Your task to perform on an android device: What's on my calendar tomorrow? Image 0: 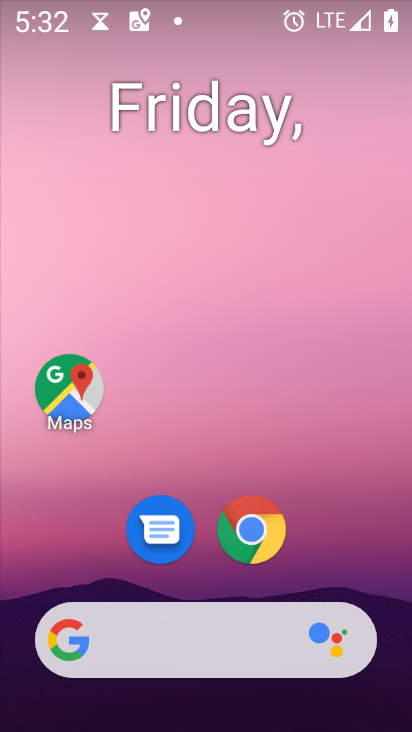
Step 0: drag from (334, 534) to (261, 58)
Your task to perform on an android device: What's on my calendar tomorrow? Image 1: 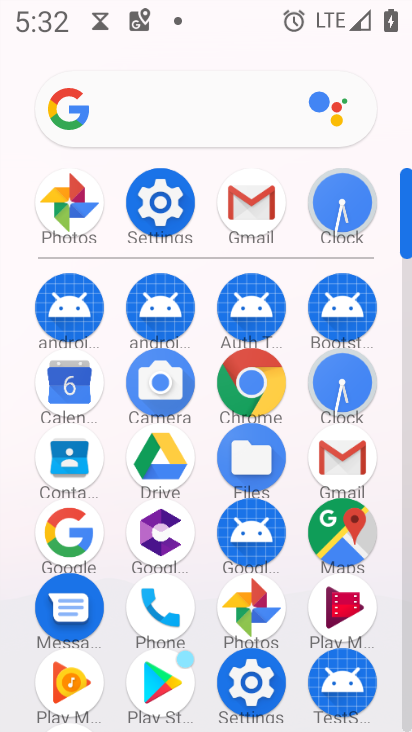
Step 1: click (68, 397)
Your task to perform on an android device: What's on my calendar tomorrow? Image 2: 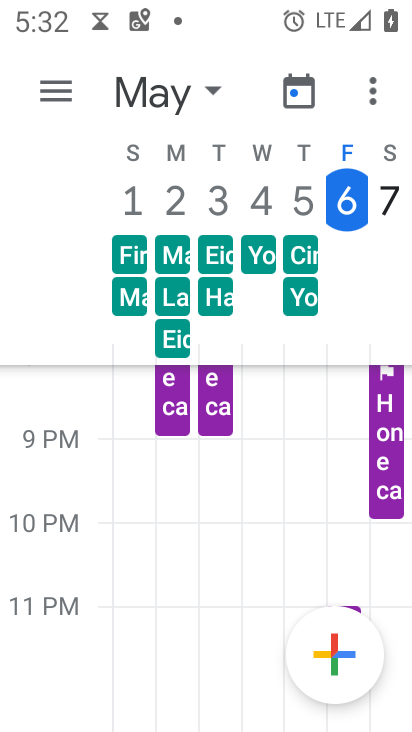
Step 2: task complete